Your task to perform on an android device: What's the weather? Image 0: 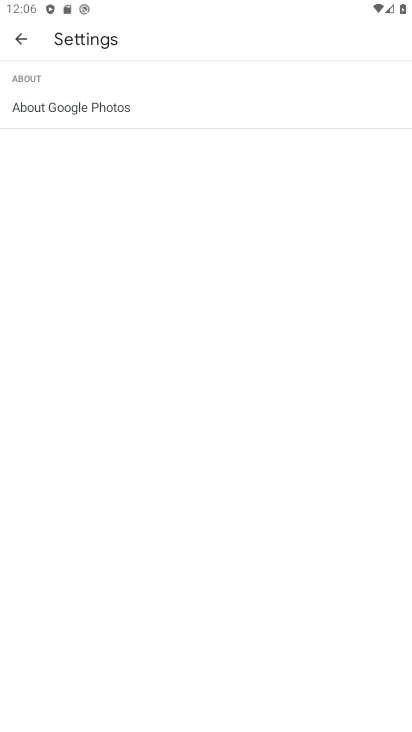
Step 0: press home button
Your task to perform on an android device: What's the weather? Image 1: 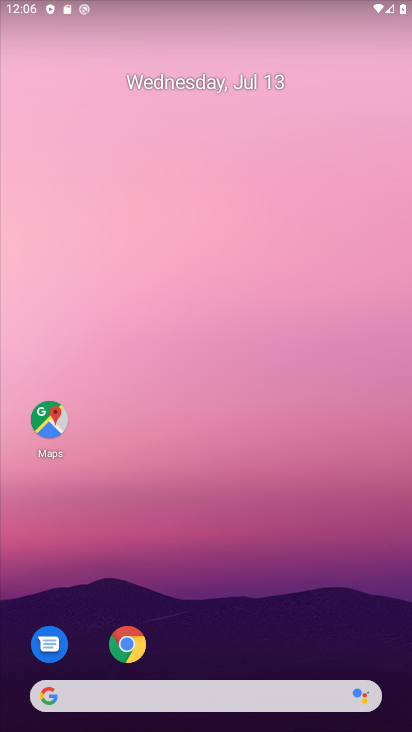
Step 1: drag from (359, 650) to (103, 27)
Your task to perform on an android device: What's the weather? Image 2: 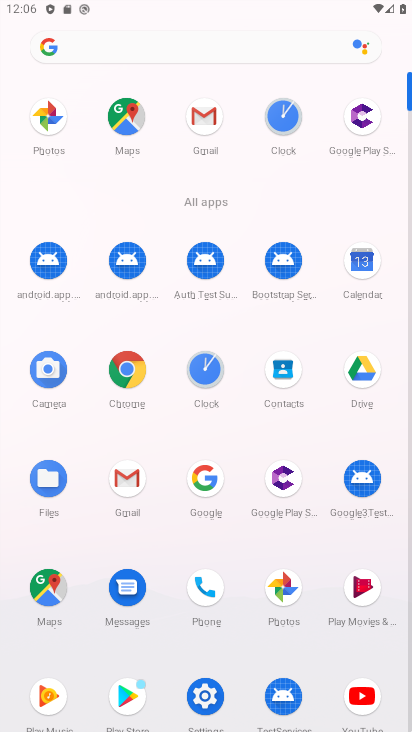
Step 2: click (126, 368)
Your task to perform on an android device: What's the weather? Image 3: 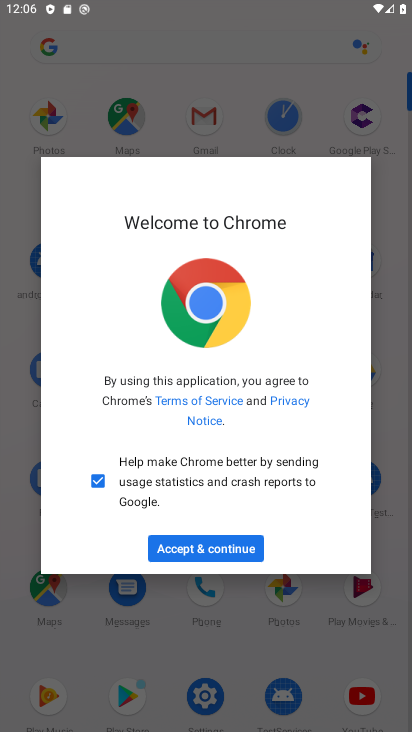
Step 3: click (257, 547)
Your task to perform on an android device: What's the weather? Image 4: 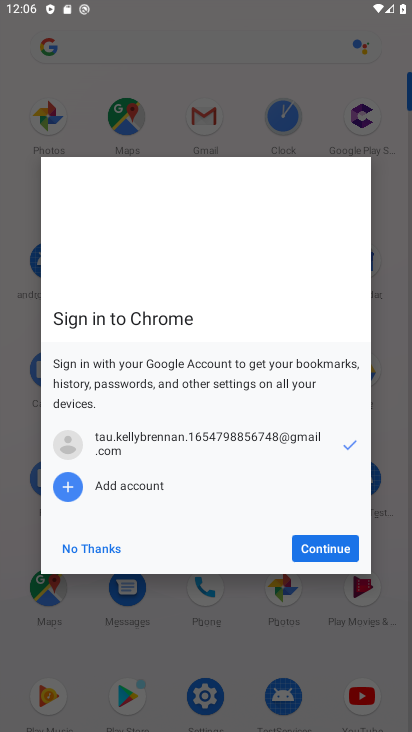
Step 4: click (322, 547)
Your task to perform on an android device: What's the weather? Image 5: 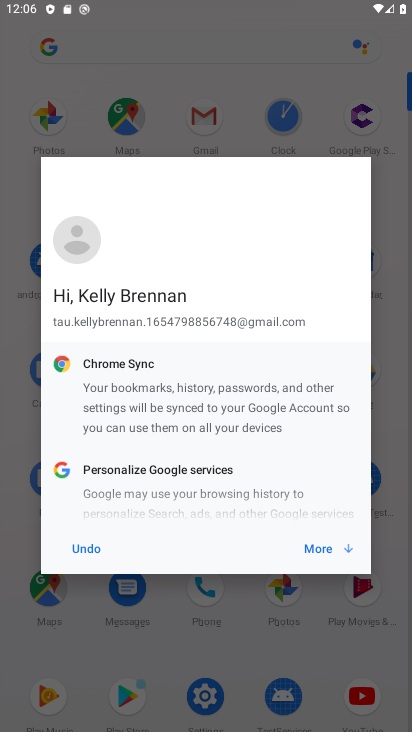
Step 5: click (322, 547)
Your task to perform on an android device: What's the weather? Image 6: 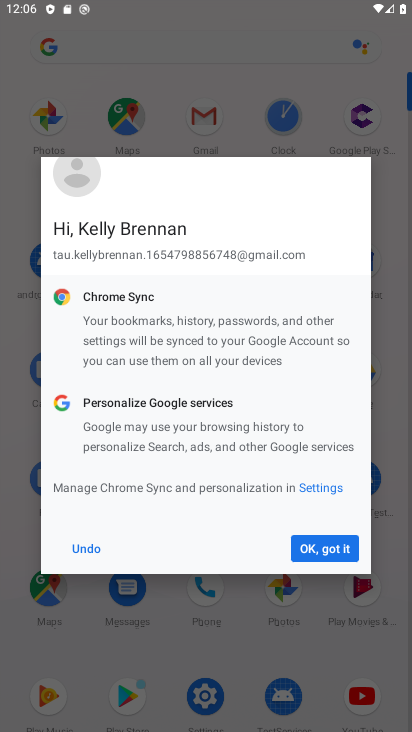
Step 6: click (322, 547)
Your task to perform on an android device: What's the weather? Image 7: 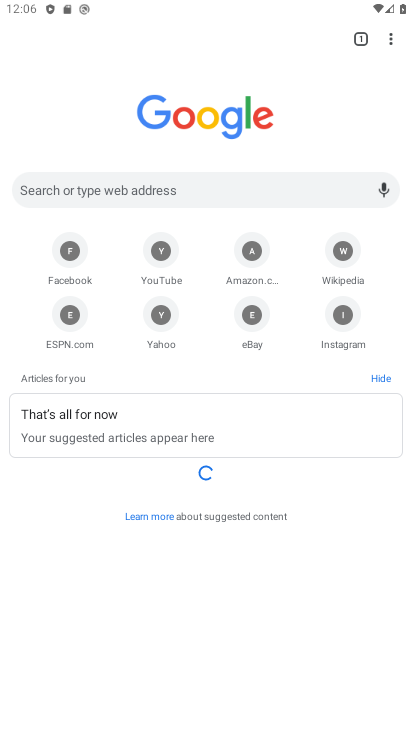
Step 7: click (205, 182)
Your task to perform on an android device: What's the weather? Image 8: 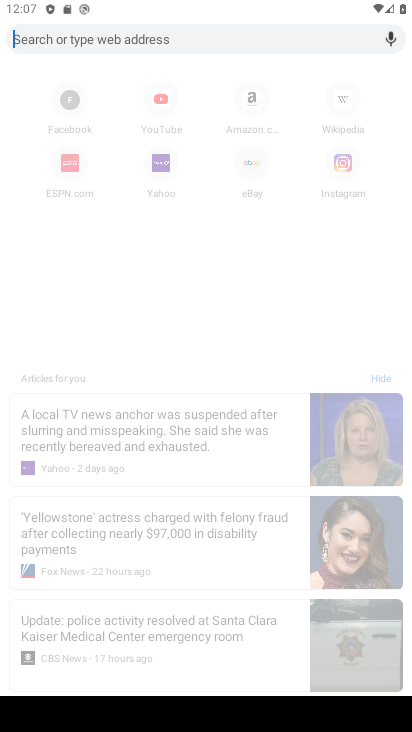
Step 8: type "weather"
Your task to perform on an android device: What's the weather? Image 9: 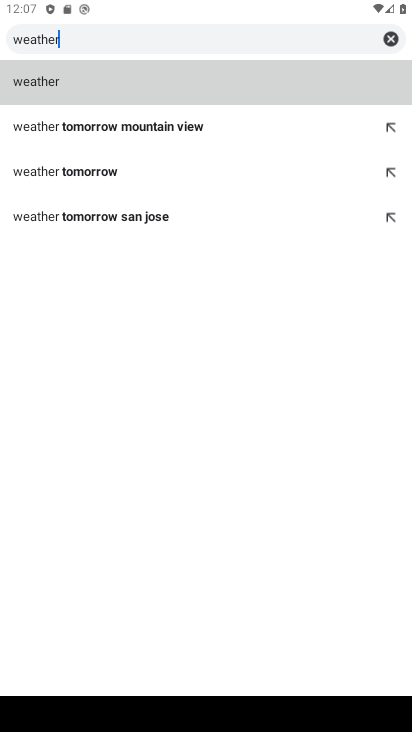
Step 9: click (47, 82)
Your task to perform on an android device: What's the weather? Image 10: 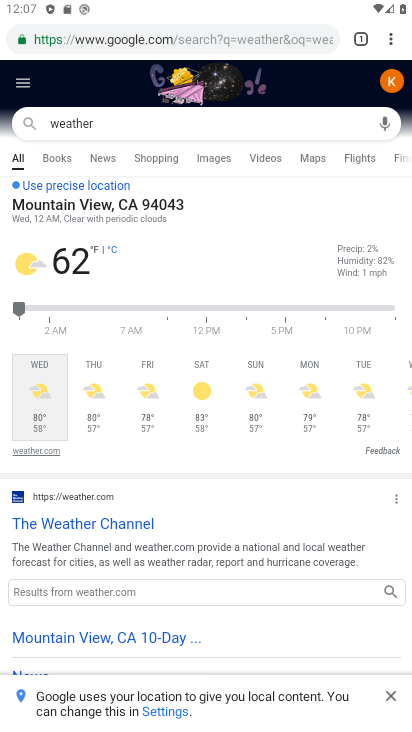
Step 10: task complete